Your task to perform on an android device: Go to settings Image 0: 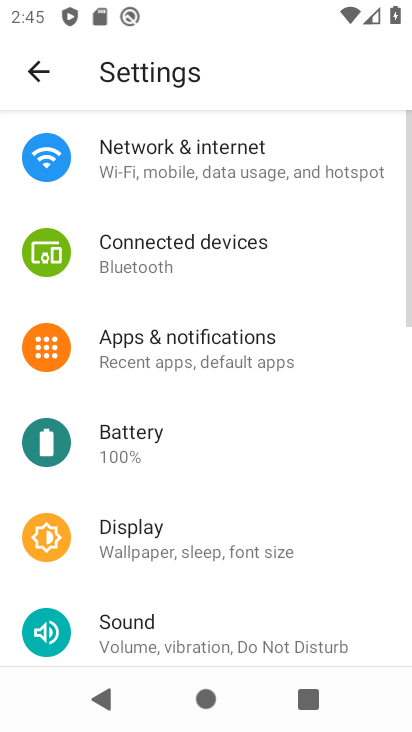
Step 0: press home button
Your task to perform on an android device: Go to settings Image 1: 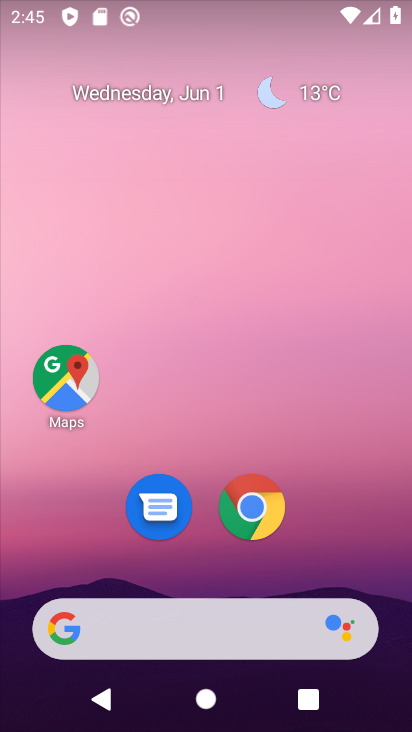
Step 1: drag from (334, 561) to (95, 82)
Your task to perform on an android device: Go to settings Image 2: 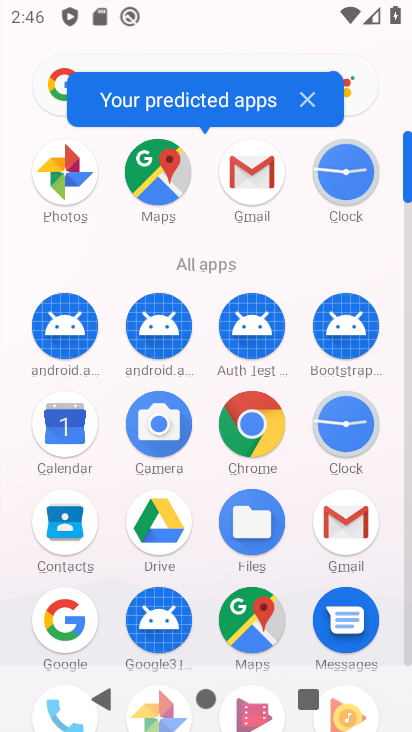
Step 2: drag from (406, 184) to (392, 676)
Your task to perform on an android device: Go to settings Image 3: 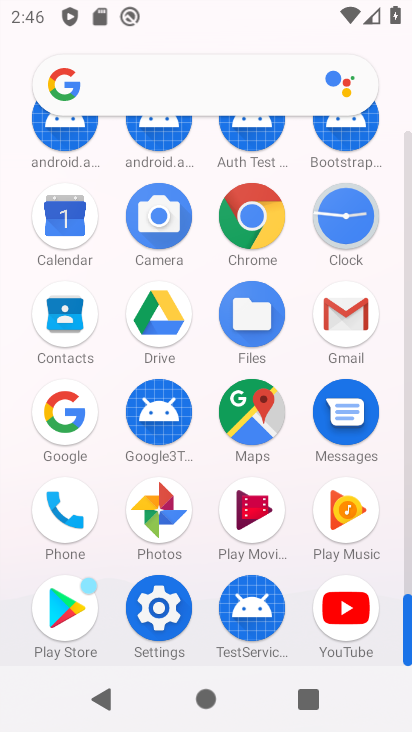
Step 3: click (152, 616)
Your task to perform on an android device: Go to settings Image 4: 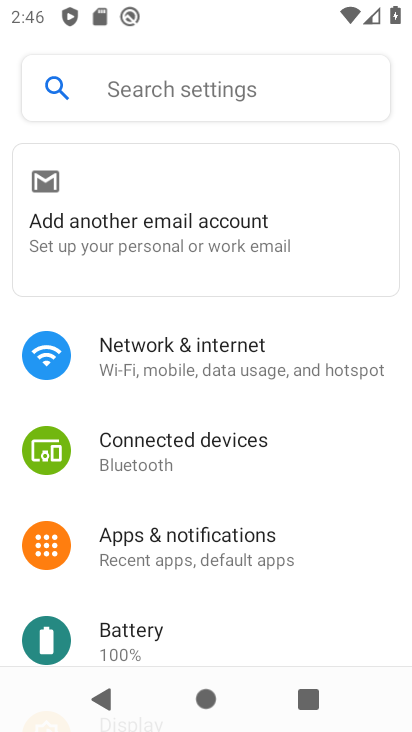
Step 4: task complete